Your task to perform on an android device: open app "Microsoft Authenticator" (install if not already installed) Image 0: 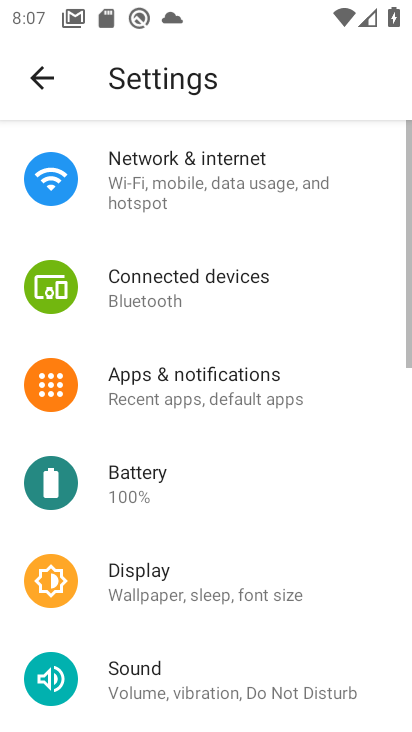
Step 0: press home button
Your task to perform on an android device: open app "Microsoft Authenticator" (install if not already installed) Image 1: 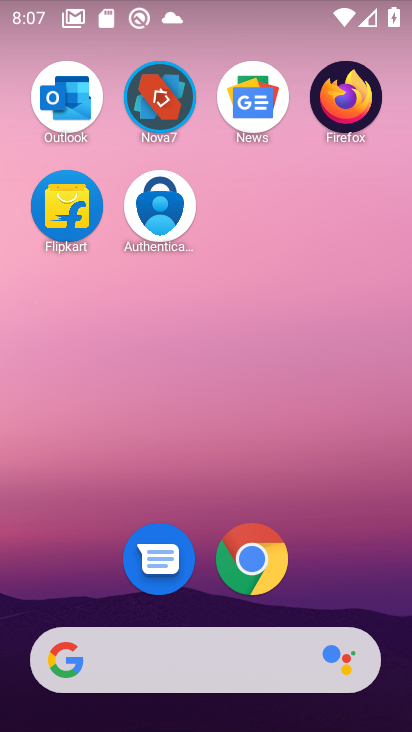
Step 1: click (162, 222)
Your task to perform on an android device: open app "Microsoft Authenticator" (install if not already installed) Image 2: 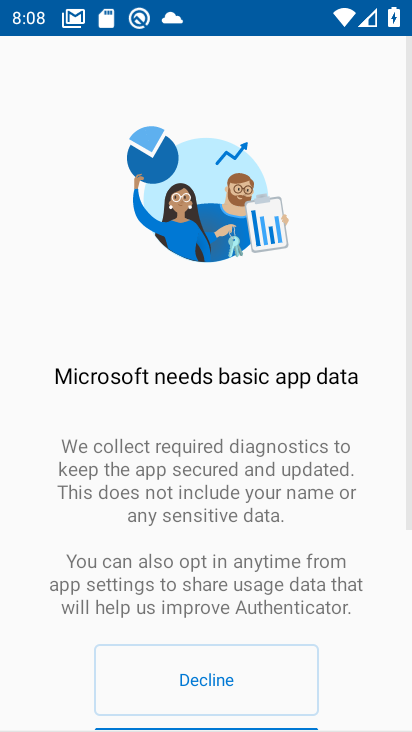
Step 2: drag from (178, 594) to (209, 350)
Your task to perform on an android device: open app "Microsoft Authenticator" (install if not already installed) Image 3: 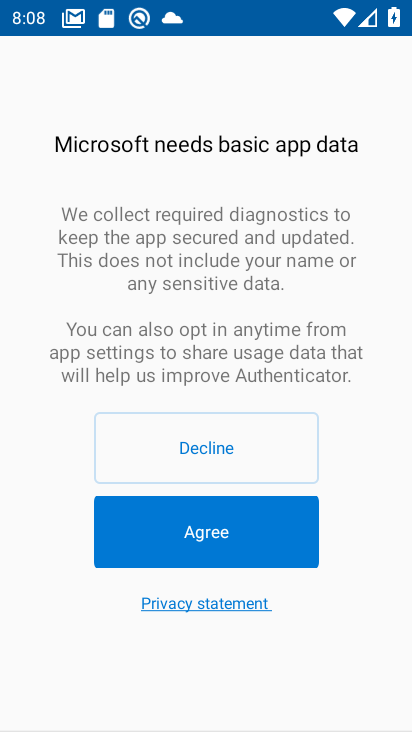
Step 3: click (220, 548)
Your task to perform on an android device: open app "Microsoft Authenticator" (install if not already installed) Image 4: 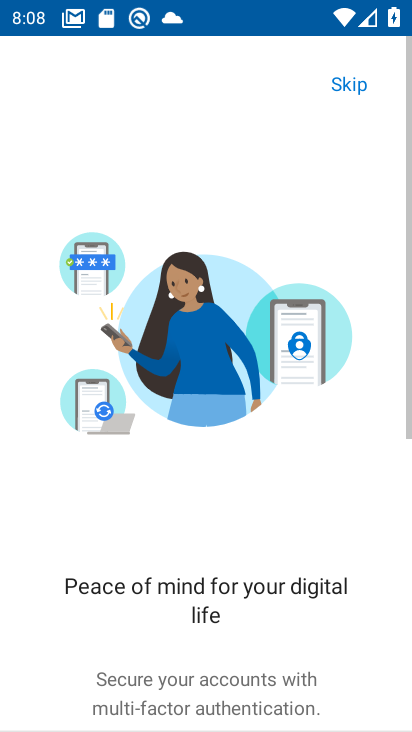
Step 4: click (344, 89)
Your task to perform on an android device: open app "Microsoft Authenticator" (install if not already installed) Image 5: 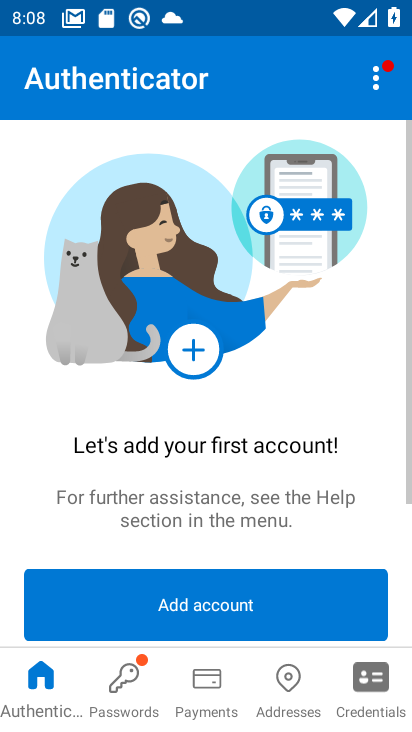
Step 5: task complete